Your task to perform on an android device: Open calendar and show me the second week of next month Image 0: 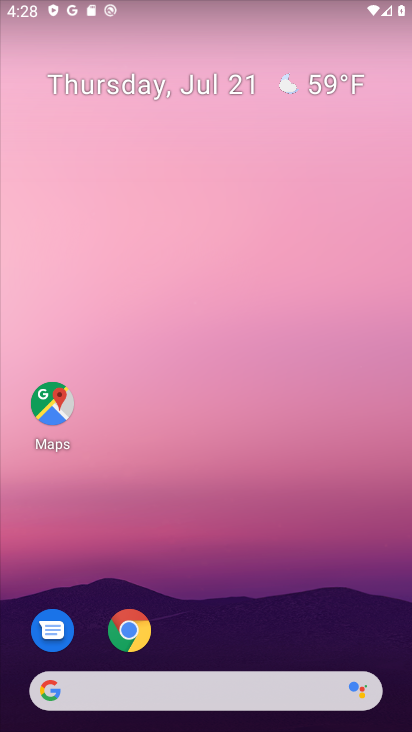
Step 0: drag from (216, 442) to (206, 255)
Your task to perform on an android device: Open calendar and show me the second week of next month Image 1: 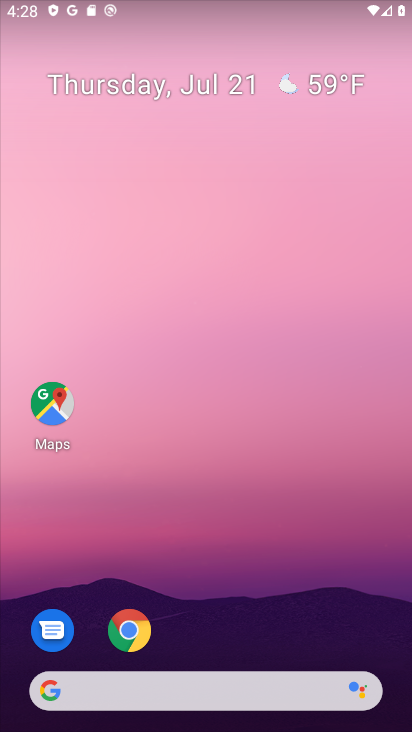
Step 1: drag from (304, 704) to (233, 250)
Your task to perform on an android device: Open calendar and show me the second week of next month Image 2: 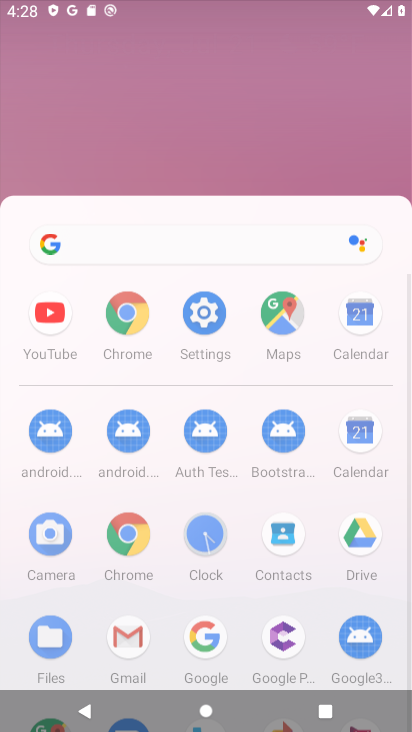
Step 2: drag from (210, 466) to (197, 107)
Your task to perform on an android device: Open calendar and show me the second week of next month Image 3: 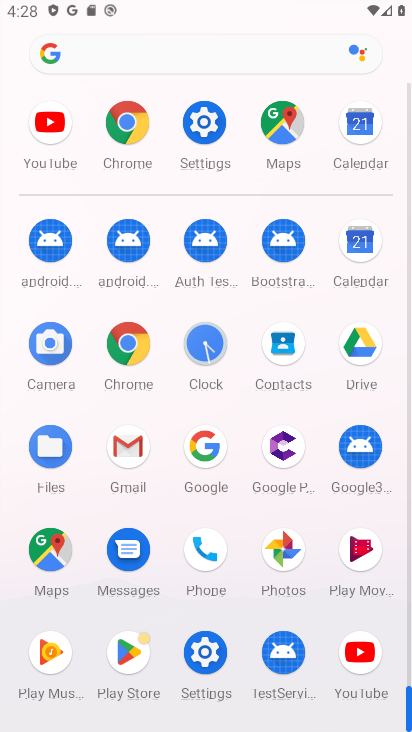
Step 3: click (362, 245)
Your task to perform on an android device: Open calendar and show me the second week of next month Image 4: 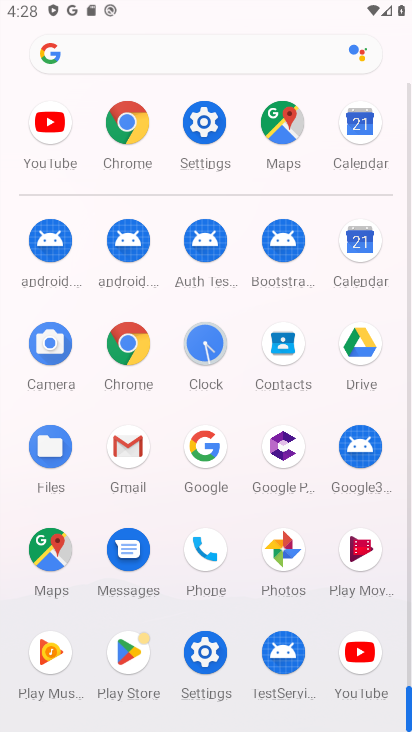
Step 4: click (362, 244)
Your task to perform on an android device: Open calendar and show me the second week of next month Image 5: 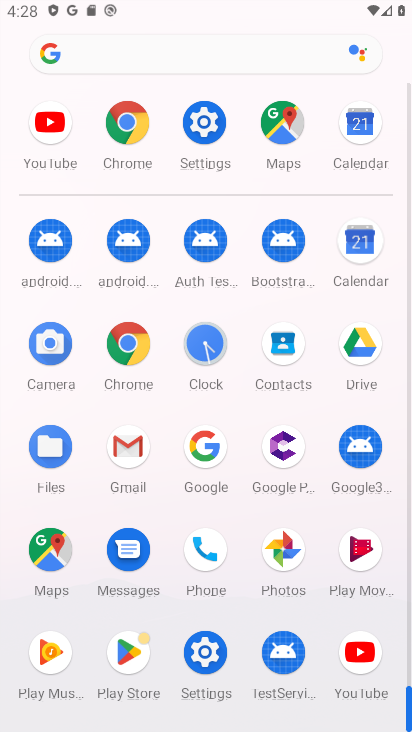
Step 5: click (362, 243)
Your task to perform on an android device: Open calendar and show me the second week of next month Image 6: 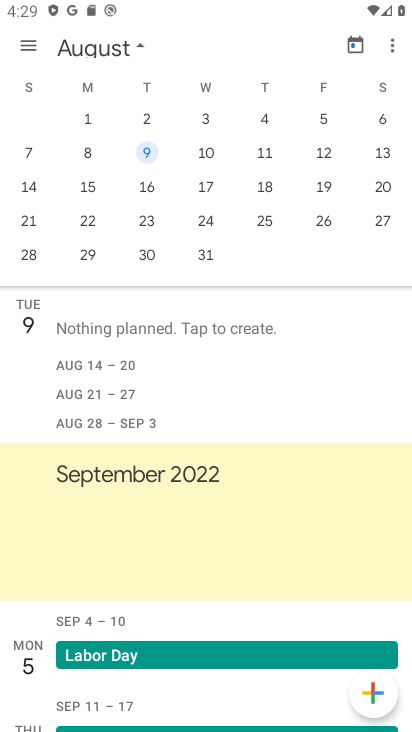
Step 6: click (152, 156)
Your task to perform on an android device: Open calendar and show me the second week of next month Image 7: 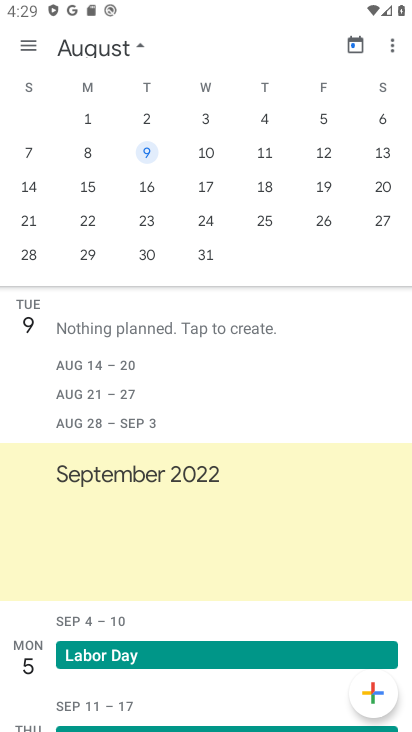
Step 7: click (151, 155)
Your task to perform on an android device: Open calendar and show me the second week of next month Image 8: 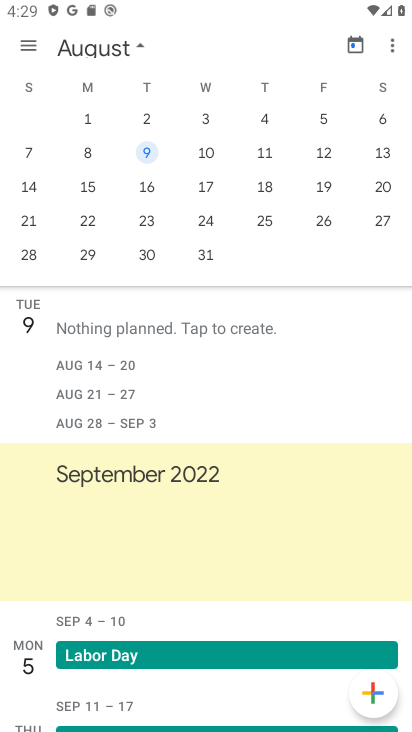
Step 8: click (161, 148)
Your task to perform on an android device: Open calendar and show me the second week of next month Image 9: 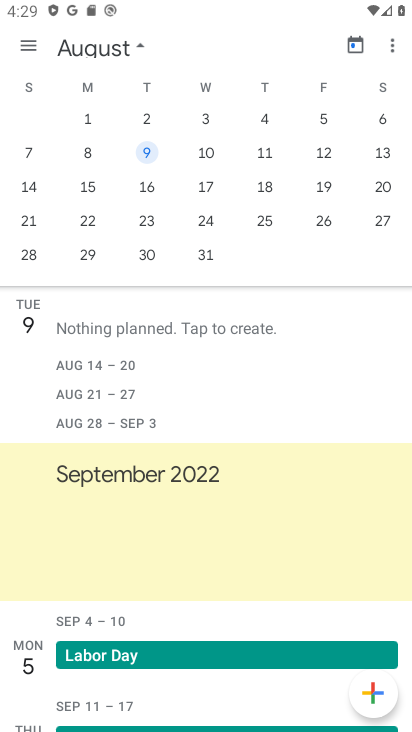
Step 9: task complete